Your task to perform on an android device: open device folders in google photos Image 0: 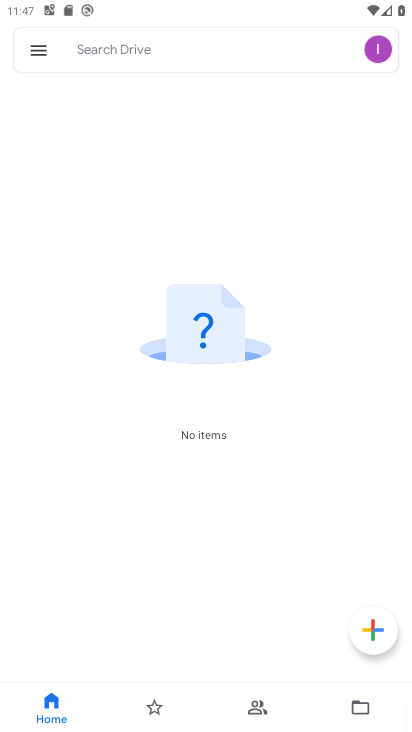
Step 0: press home button
Your task to perform on an android device: open device folders in google photos Image 1: 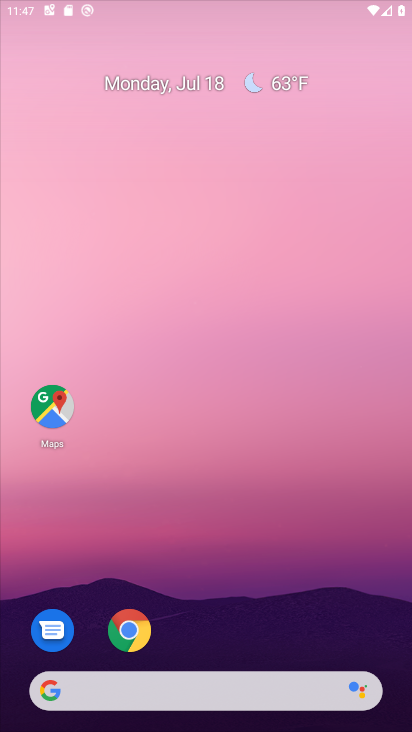
Step 1: drag from (225, 651) to (222, 111)
Your task to perform on an android device: open device folders in google photos Image 2: 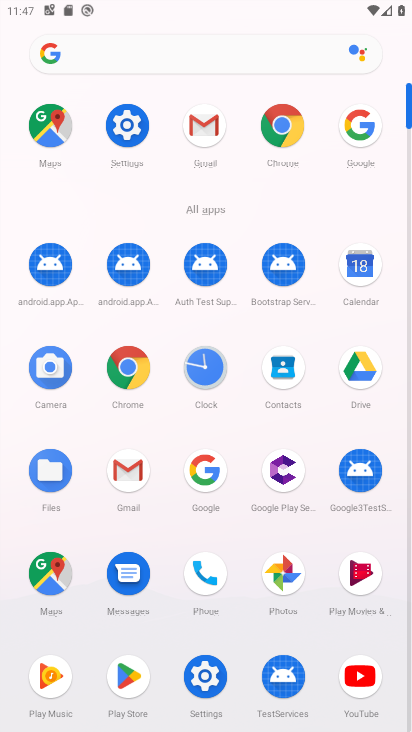
Step 2: click (280, 575)
Your task to perform on an android device: open device folders in google photos Image 3: 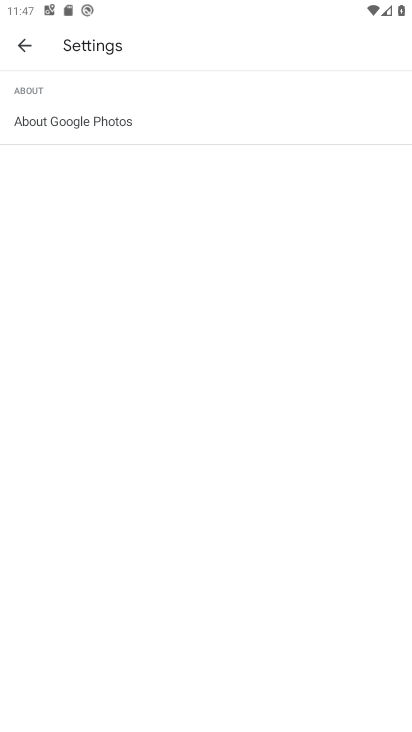
Step 3: press back button
Your task to perform on an android device: open device folders in google photos Image 4: 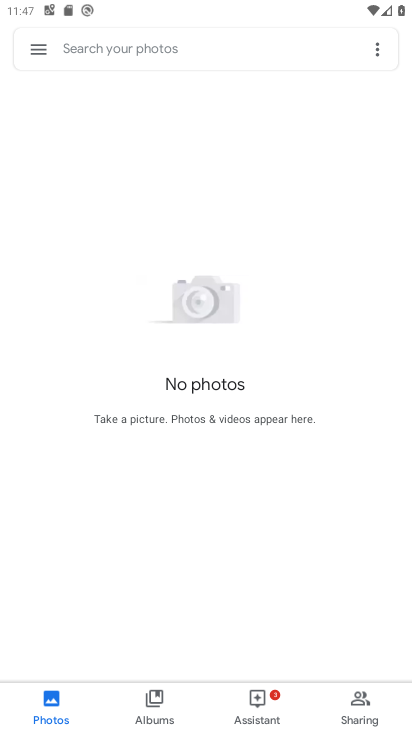
Step 4: click (42, 46)
Your task to perform on an android device: open device folders in google photos Image 5: 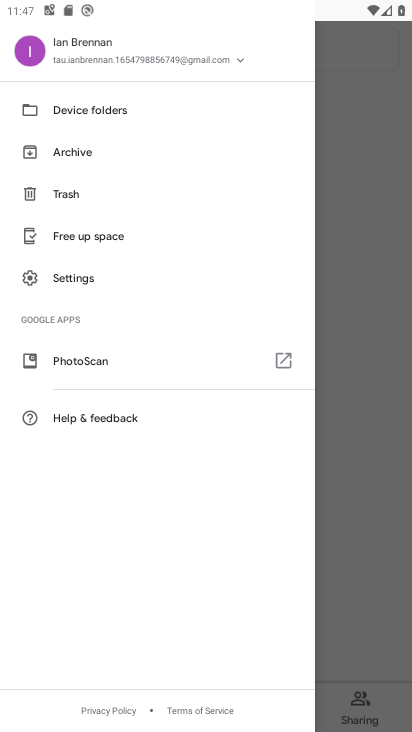
Step 5: click (77, 109)
Your task to perform on an android device: open device folders in google photos Image 6: 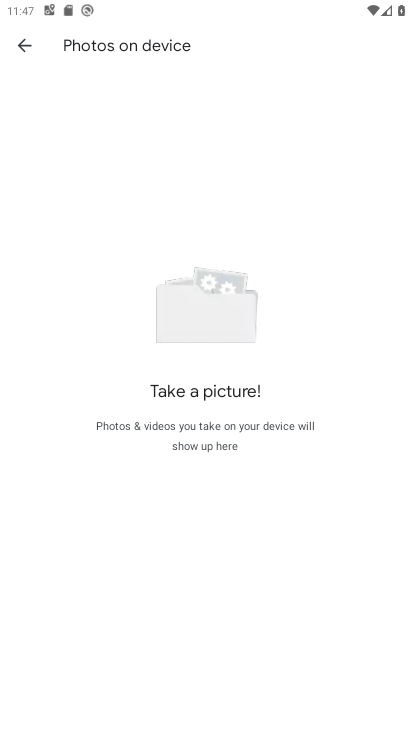
Step 6: task complete